Your task to perform on an android device: Do I have any events this weekend? Image 0: 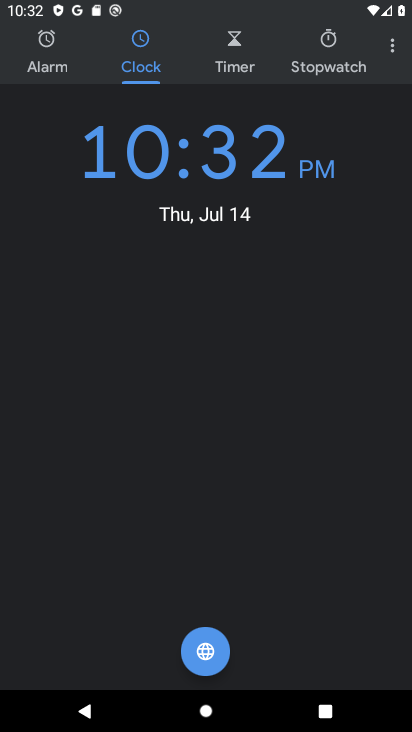
Step 0: press home button
Your task to perform on an android device: Do I have any events this weekend? Image 1: 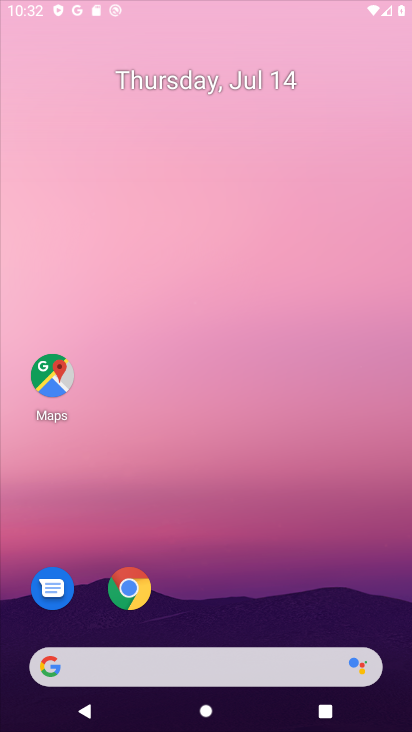
Step 1: drag from (318, 532) to (334, 109)
Your task to perform on an android device: Do I have any events this weekend? Image 2: 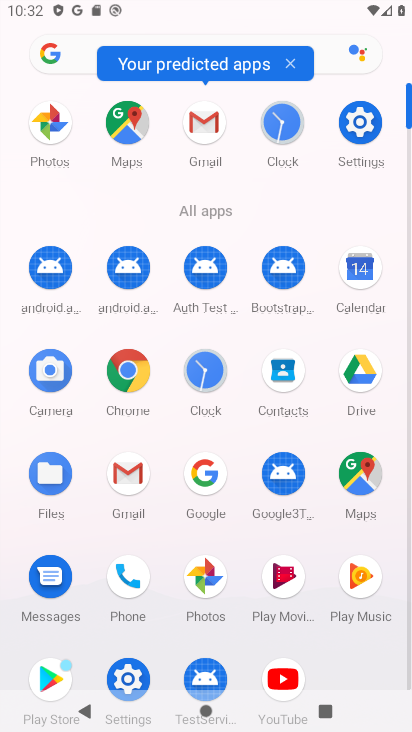
Step 2: click (359, 267)
Your task to perform on an android device: Do I have any events this weekend? Image 3: 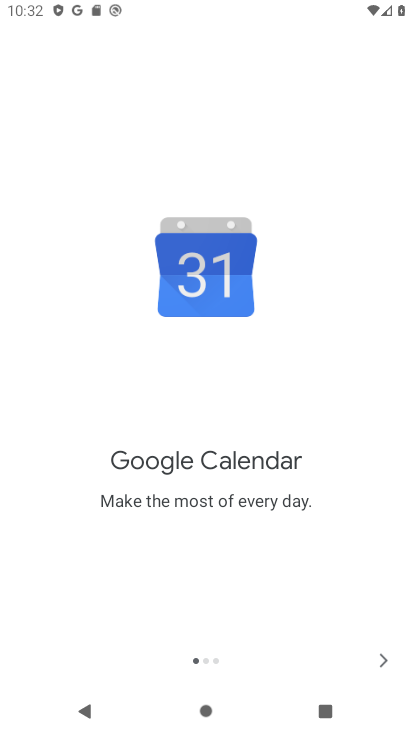
Step 3: click (377, 647)
Your task to perform on an android device: Do I have any events this weekend? Image 4: 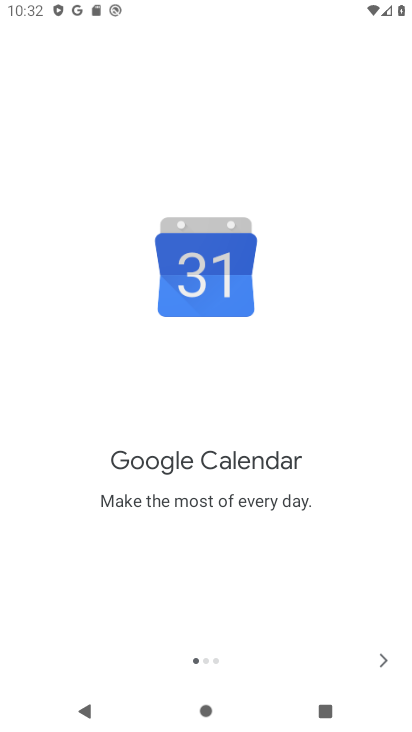
Step 4: click (377, 647)
Your task to perform on an android device: Do I have any events this weekend? Image 5: 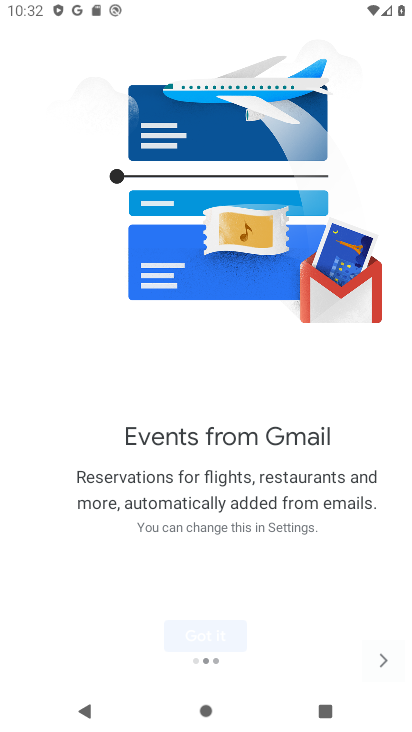
Step 5: click (377, 653)
Your task to perform on an android device: Do I have any events this weekend? Image 6: 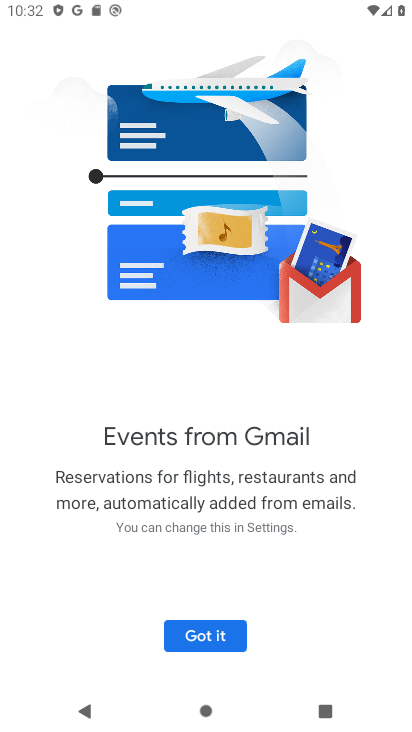
Step 6: click (221, 628)
Your task to perform on an android device: Do I have any events this weekend? Image 7: 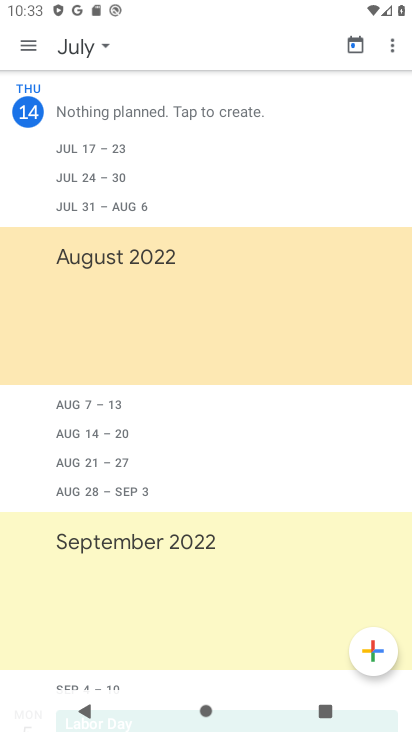
Step 7: click (104, 47)
Your task to perform on an android device: Do I have any events this weekend? Image 8: 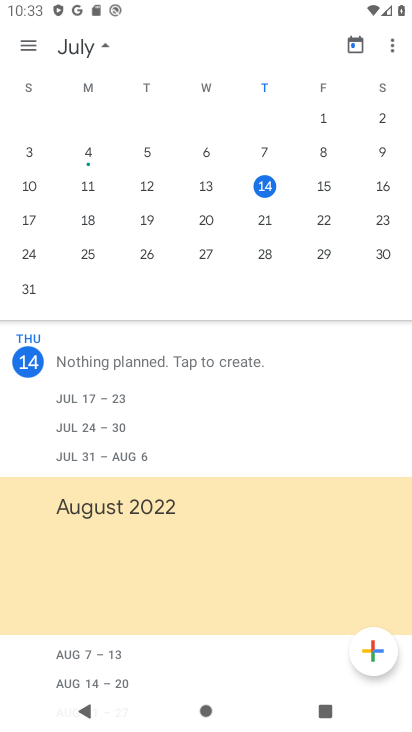
Step 8: click (128, 220)
Your task to perform on an android device: Do I have any events this weekend? Image 9: 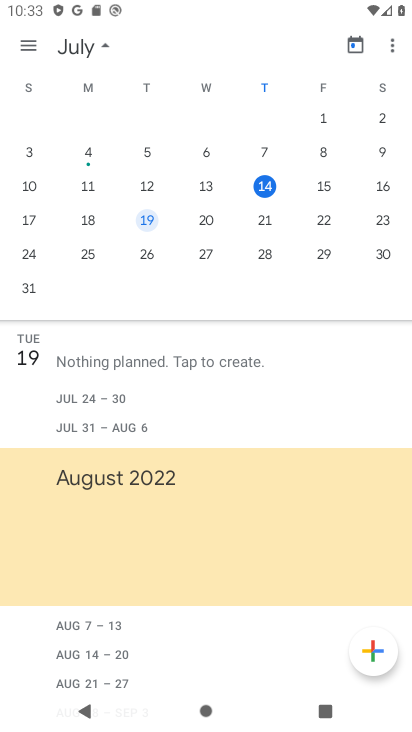
Step 9: click (109, 44)
Your task to perform on an android device: Do I have any events this weekend? Image 10: 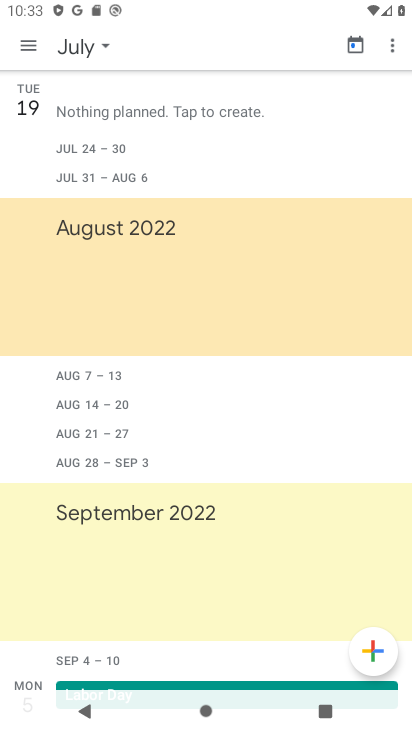
Step 10: task complete